Your task to perform on an android device: check google app version Image 0: 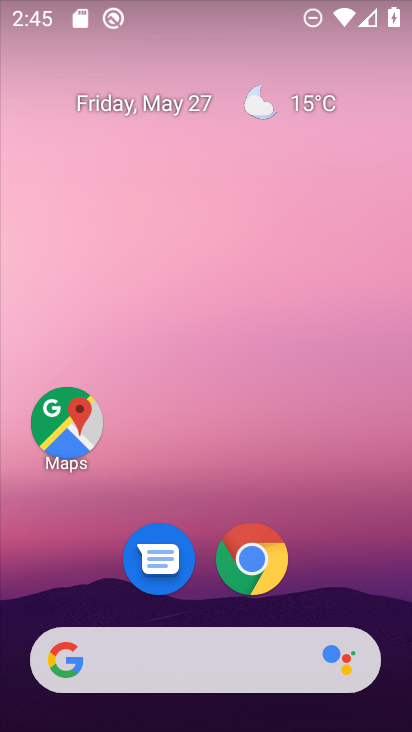
Step 0: drag from (270, 650) to (250, 97)
Your task to perform on an android device: check google app version Image 1: 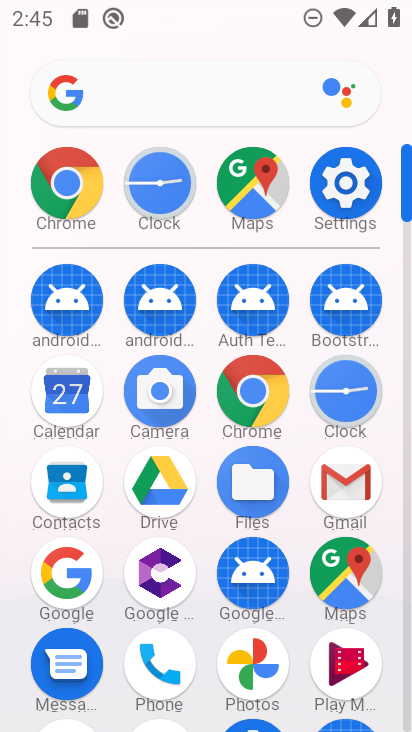
Step 1: click (266, 372)
Your task to perform on an android device: check google app version Image 2: 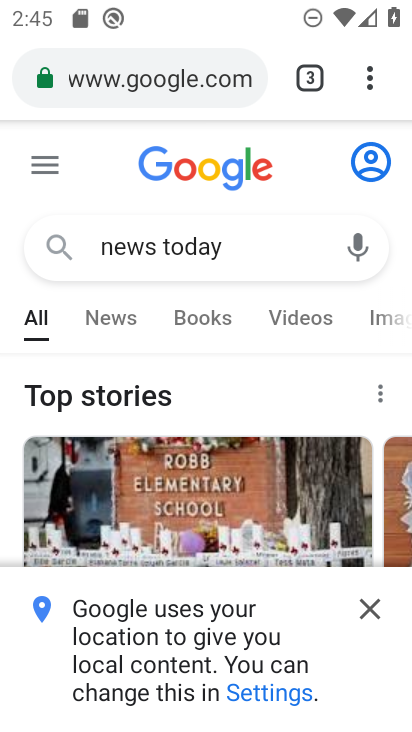
Step 2: drag from (366, 79) to (238, 621)
Your task to perform on an android device: check google app version Image 3: 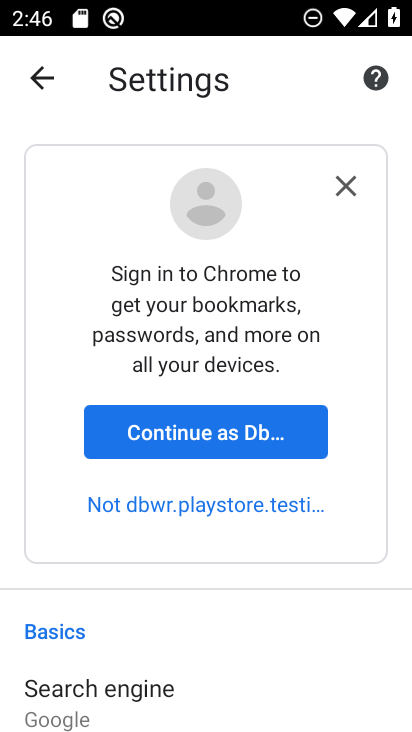
Step 3: drag from (255, 692) to (245, 80)
Your task to perform on an android device: check google app version Image 4: 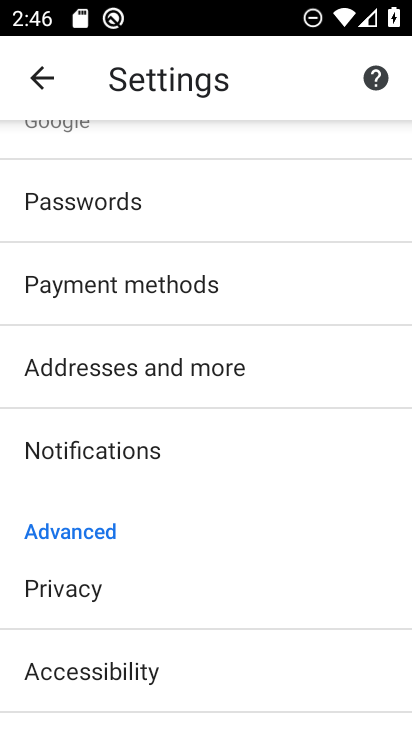
Step 4: press back button
Your task to perform on an android device: check google app version Image 5: 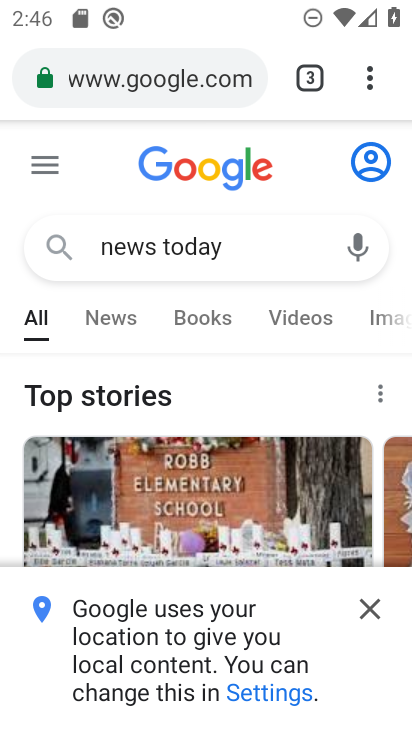
Step 5: drag from (361, 72) to (219, 679)
Your task to perform on an android device: check google app version Image 6: 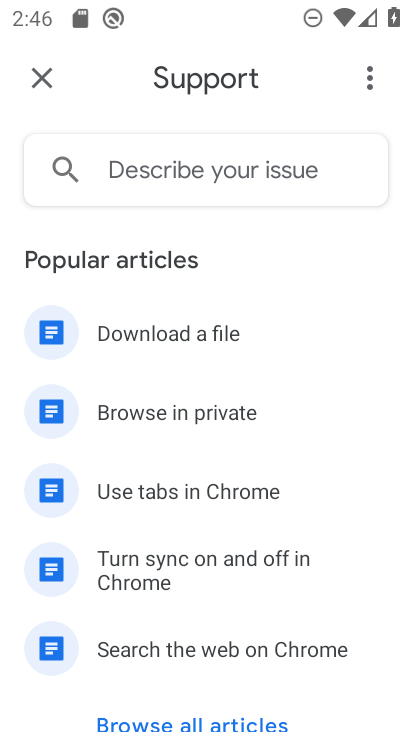
Step 6: click (367, 67)
Your task to perform on an android device: check google app version Image 7: 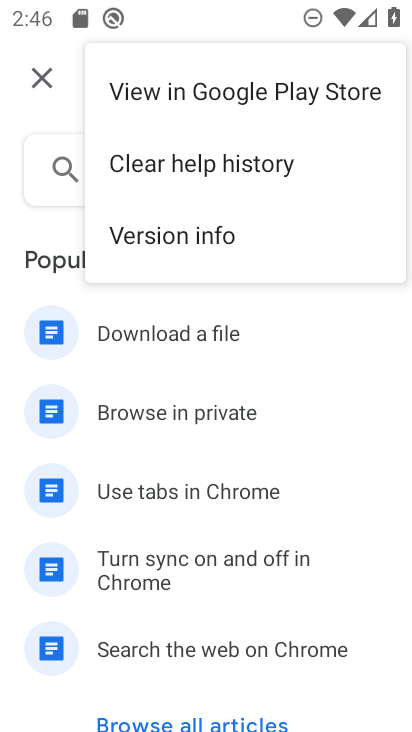
Step 7: click (265, 239)
Your task to perform on an android device: check google app version Image 8: 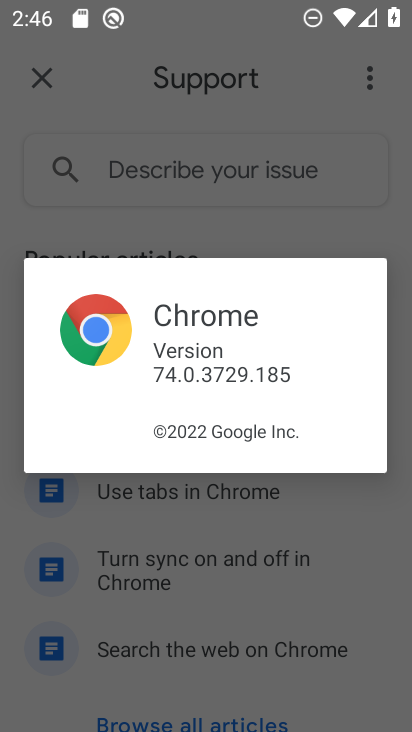
Step 8: task complete